Your task to perform on an android device: Open Android settings Image 0: 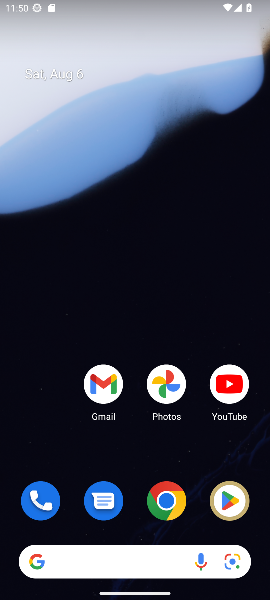
Step 0: drag from (131, 503) to (120, 53)
Your task to perform on an android device: Open Android settings Image 1: 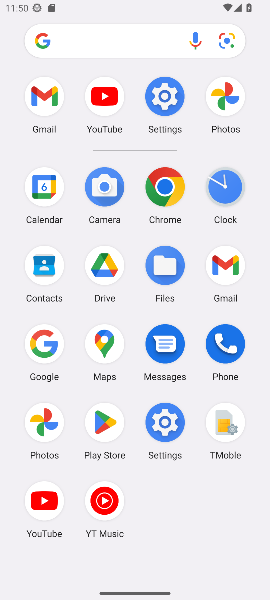
Step 1: click (162, 98)
Your task to perform on an android device: Open Android settings Image 2: 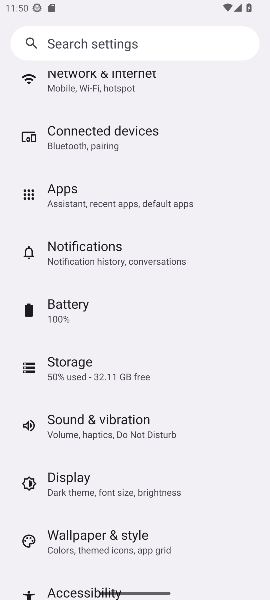
Step 2: drag from (109, 498) to (140, 99)
Your task to perform on an android device: Open Android settings Image 3: 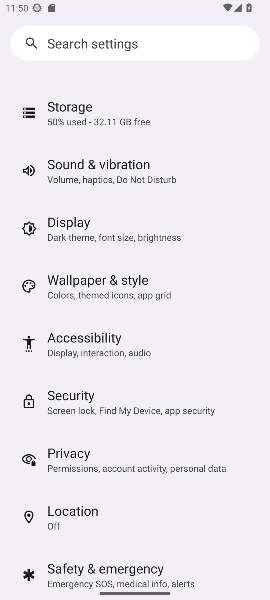
Step 3: drag from (155, 145) to (155, 114)
Your task to perform on an android device: Open Android settings Image 4: 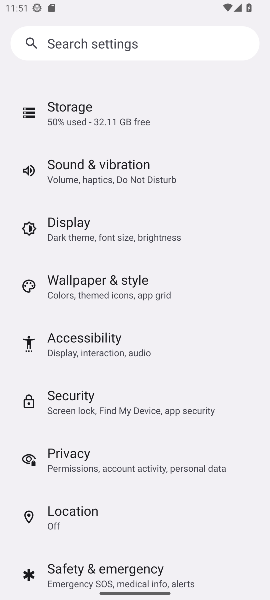
Step 4: drag from (73, 505) to (149, 15)
Your task to perform on an android device: Open Android settings Image 5: 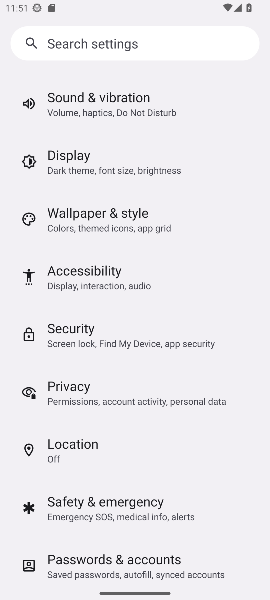
Step 5: drag from (100, 480) to (143, 80)
Your task to perform on an android device: Open Android settings Image 6: 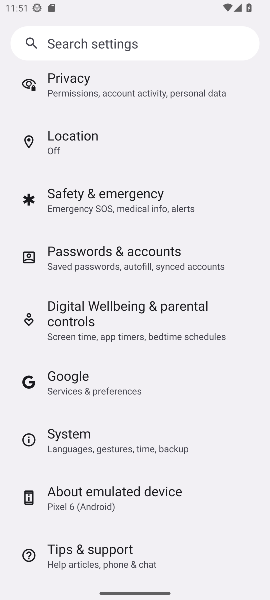
Step 6: click (85, 494)
Your task to perform on an android device: Open Android settings Image 7: 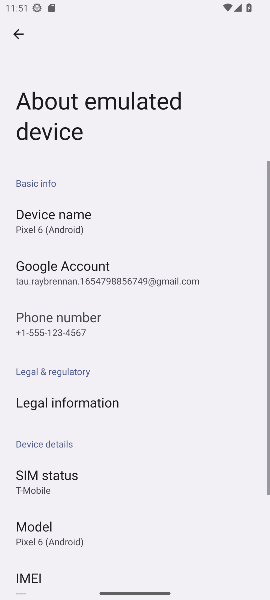
Step 7: drag from (53, 534) to (79, 180)
Your task to perform on an android device: Open Android settings Image 8: 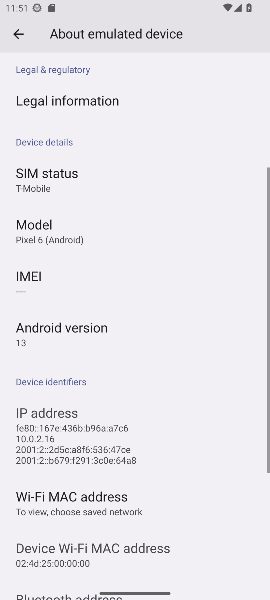
Step 8: click (45, 333)
Your task to perform on an android device: Open Android settings Image 9: 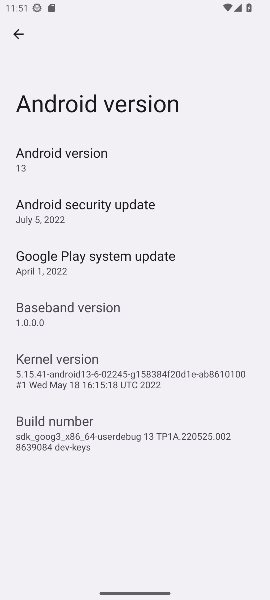
Step 9: task complete